Your task to perform on an android device: Go to Wikipedia Image 0: 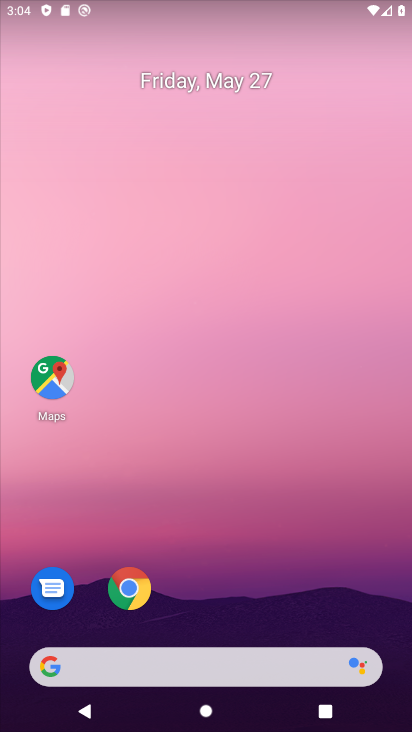
Step 0: click (141, 591)
Your task to perform on an android device: Go to Wikipedia Image 1: 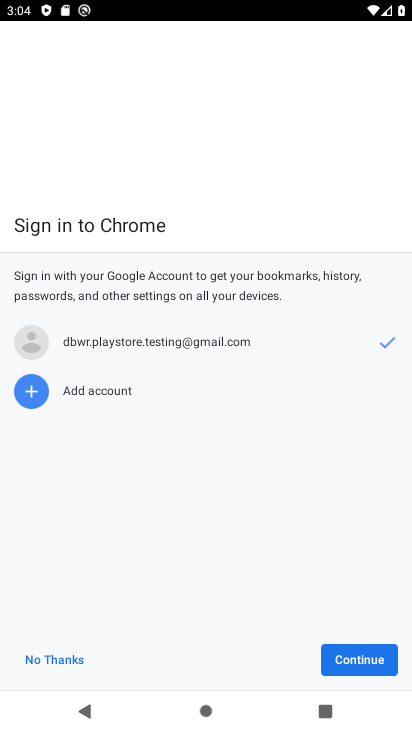
Step 1: click (363, 646)
Your task to perform on an android device: Go to Wikipedia Image 2: 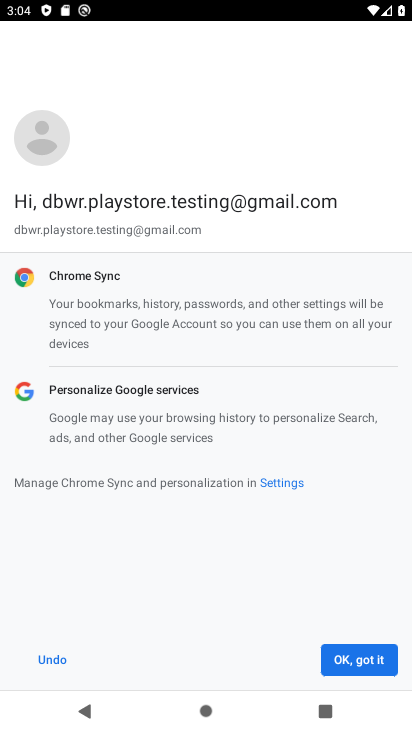
Step 2: click (361, 661)
Your task to perform on an android device: Go to Wikipedia Image 3: 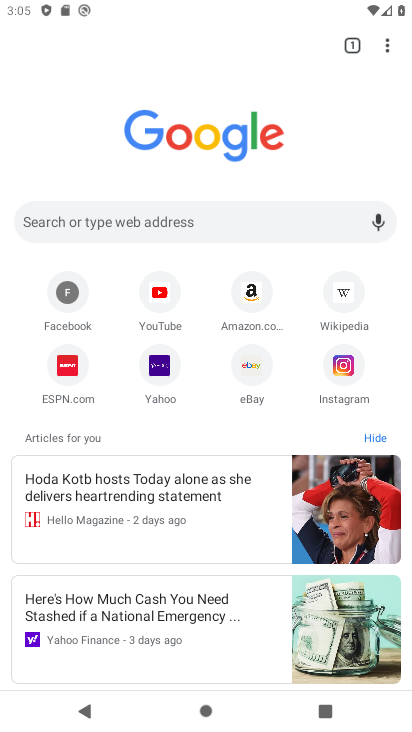
Step 3: click (351, 292)
Your task to perform on an android device: Go to Wikipedia Image 4: 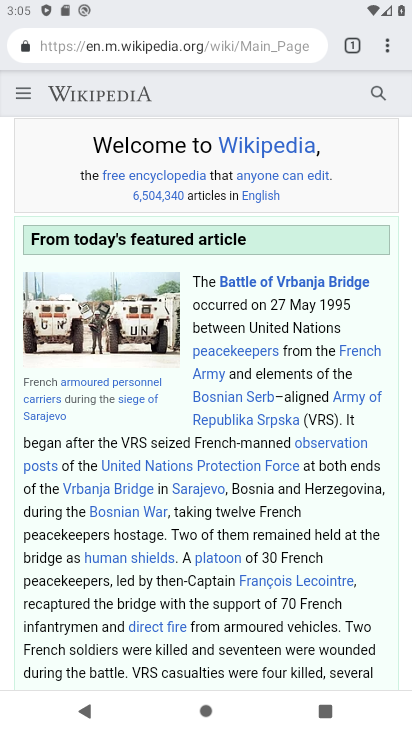
Step 4: task complete